Your task to perform on an android device: What is the news today? Image 0: 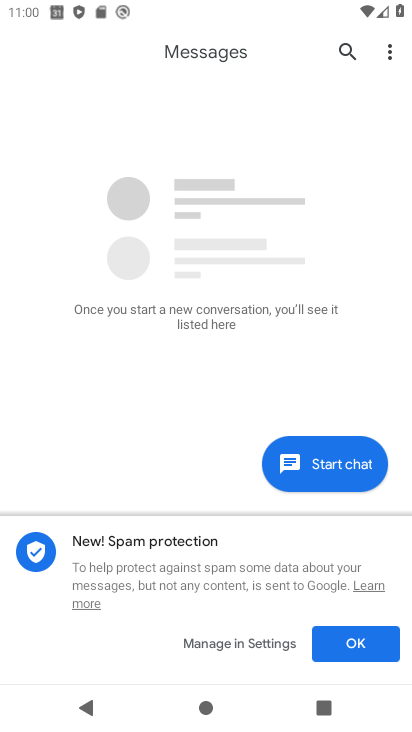
Step 0: press home button
Your task to perform on an android device: What is the news today? Image 1: 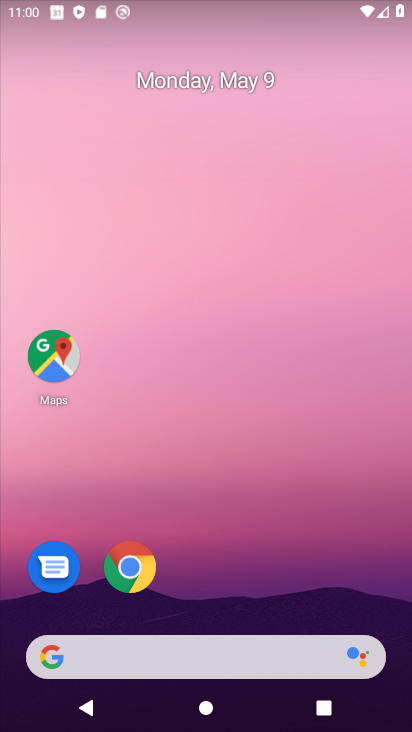
Step 1: click (174, 662)
Your task to perform on an android device: What is the news today? Image 2: 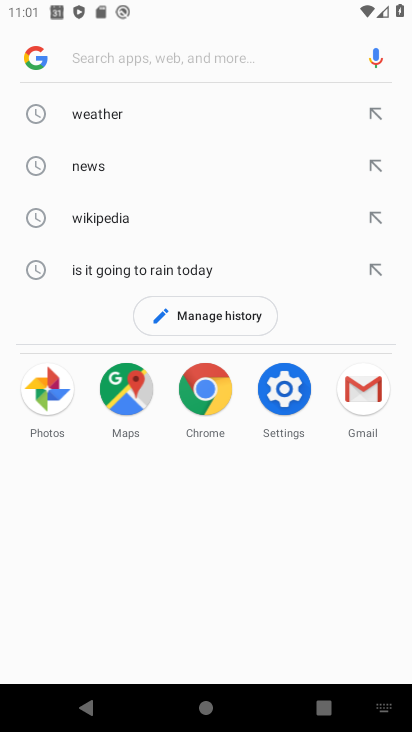
Step 2: press home button
Your task to perform on an android device: What is the news today? Image 3: 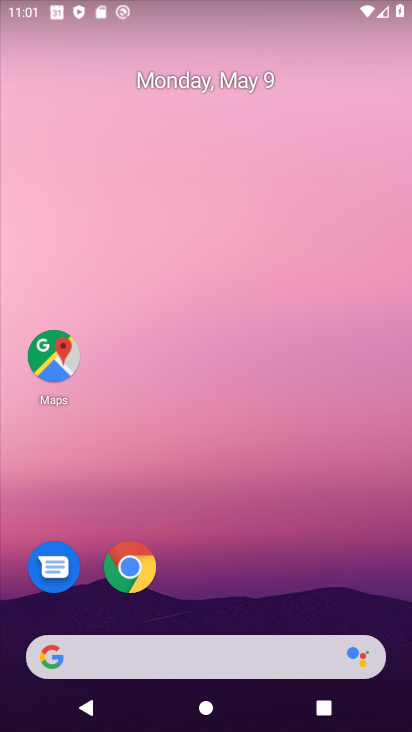
Step 3: click (119, 552)
Your task to perform on an android device: What is the news today? Image 4: 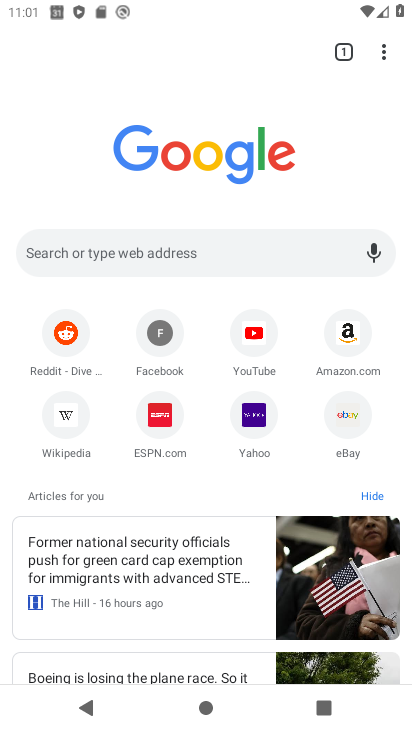
Step 4: click (179, 556)
Your task to perform on an android device: What is the news today? Image 5: 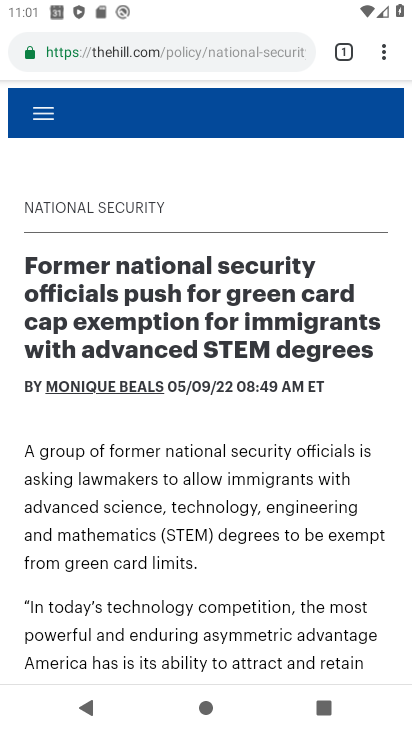
Step 5: task complete